Your task to perform on an android device: When is my next meeting? Image 0: 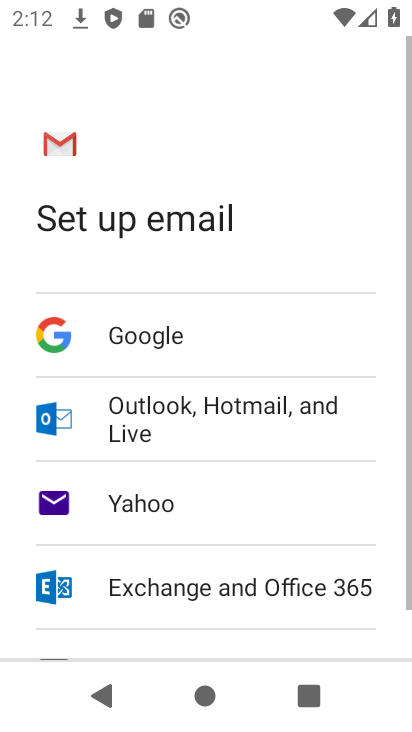
Step 0: press home button
Your task to perform on an android device: When is my next meeting? Image 1: 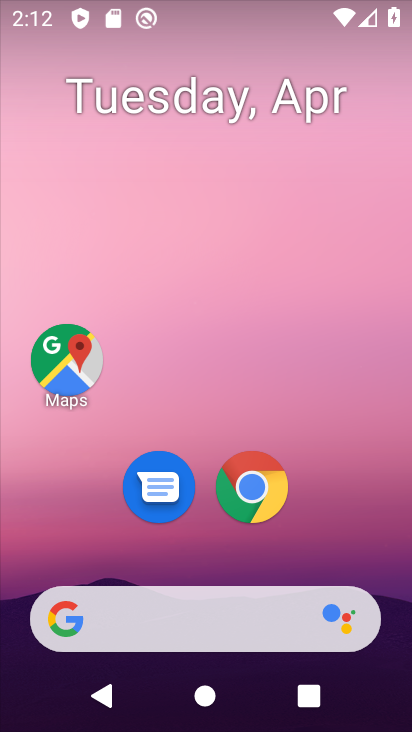
Step 1: drag from (314, 482) to (314, 153)
Your task to perform on an android device: When is my next meeting? Image 2: 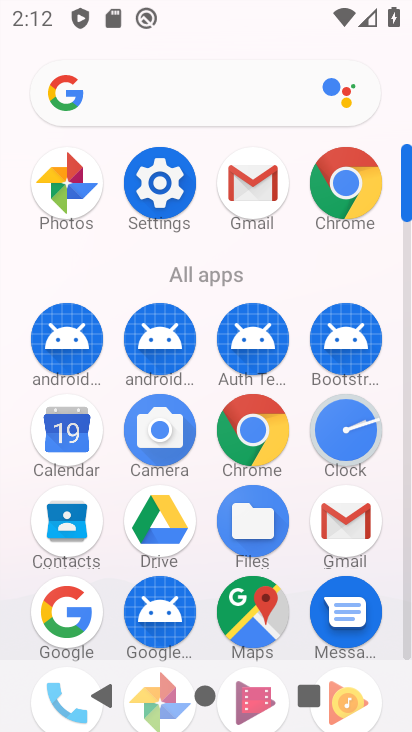
Step 2: click (65, 450)
Your task to perform on an android device: When is my next meeting? Image 3: 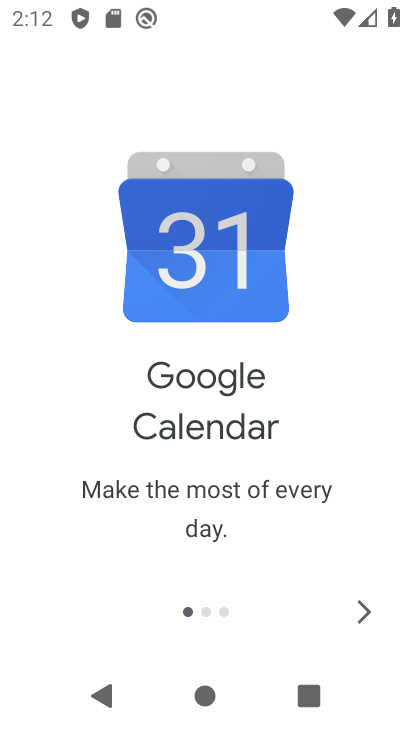
Step 3: click (366, 615)
Your task to perform on an android device: When is my next meeting? Image 4: 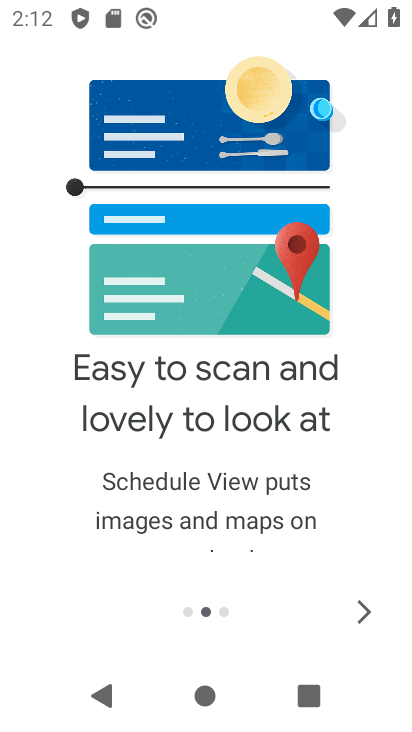
Step 4: click (366, 614)
Your task to perform on an android device: When is my next meeting? Image 5: 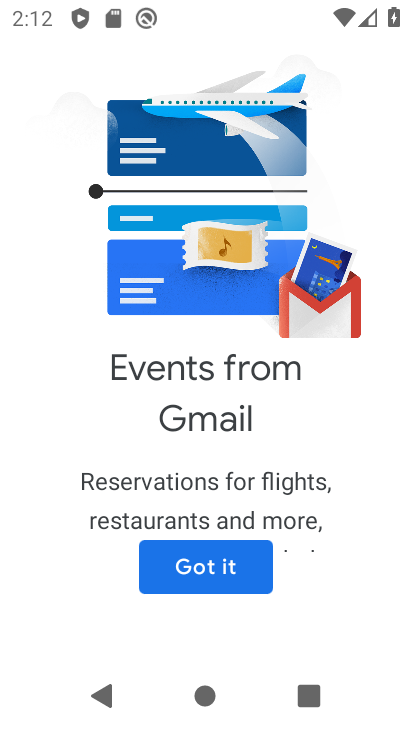
Step 5: click (366, 614)
Your task to perform on an android device: When is my next meeting? Image 6: 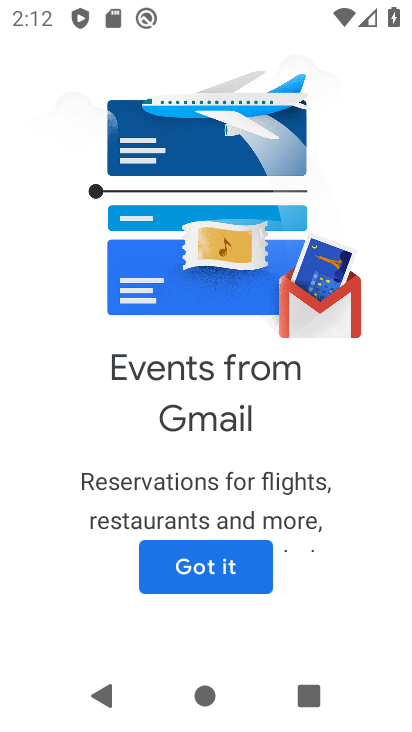
Step 6: click (246, 578)
Your task to perform on an android device: When is my next meeting? Image 7: 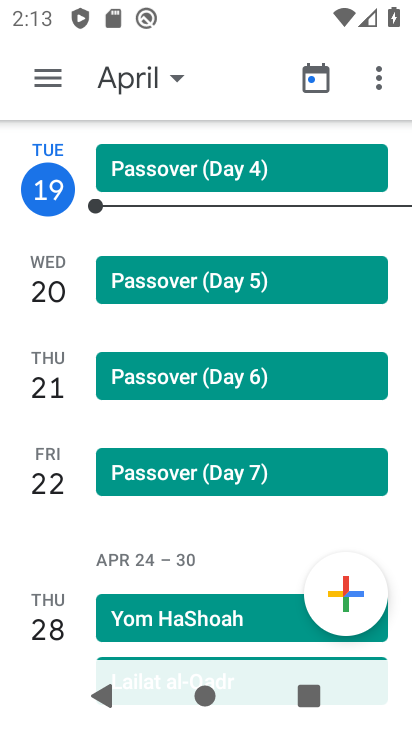
Step 7: click (141, 81)
Your task to perform on an android device: When is my next meeting? Image 8: 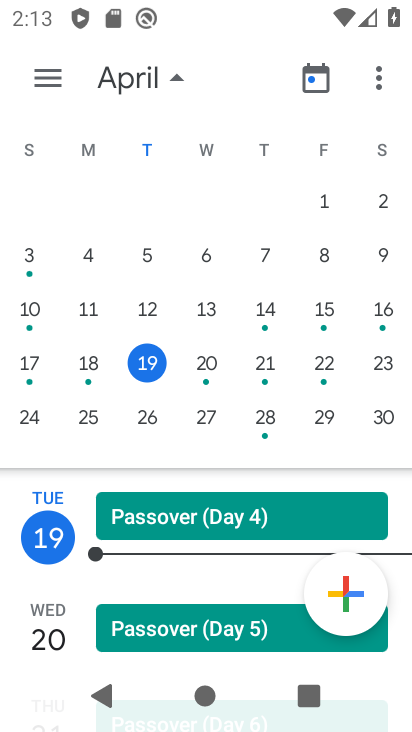
Step 8: click (207, 374)
Your task to perform on an android device: When is my next meeting? Image 9: 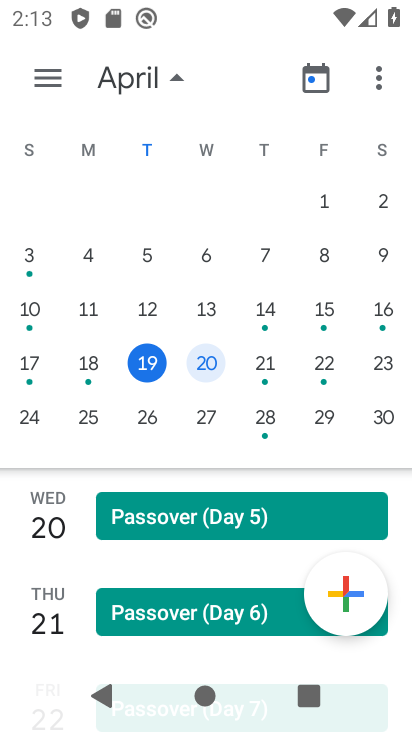
Step 9: click (259, 376)
Your task to perform on an android device: When is my next meeting? Image 10: 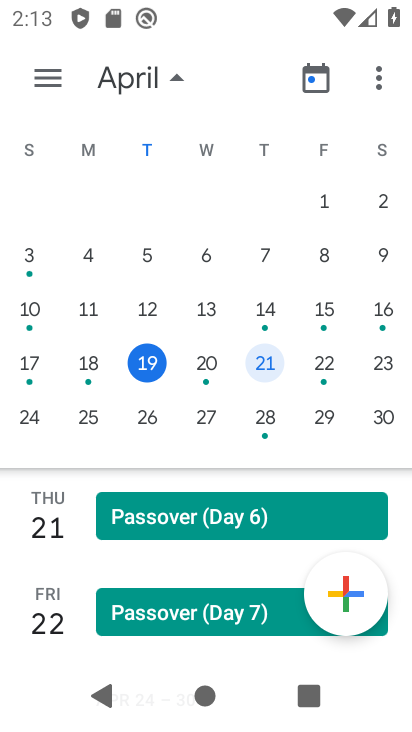
Step 10: click (317, 373)
Your task to perform on an android device: When is my next meeting? Image 11: 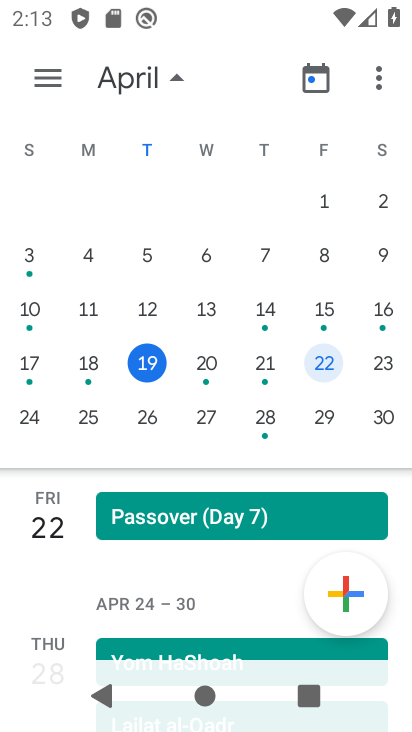
Step 11: click (253, 431)
Your task to perform on an android device: When is my next meeting? Image 12: 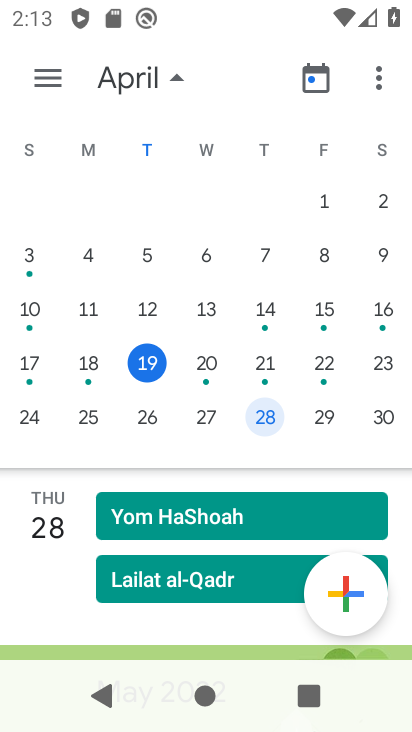
Step 12: task complete